Your task to perform on an android device: turn on improve location accuracy Image 0: 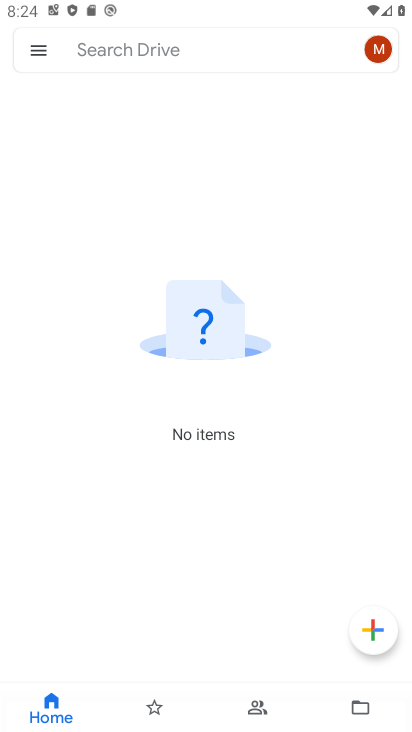
Step 0: press home button
Your task to perform on an android device: turn on improve location accuracy Image 1: 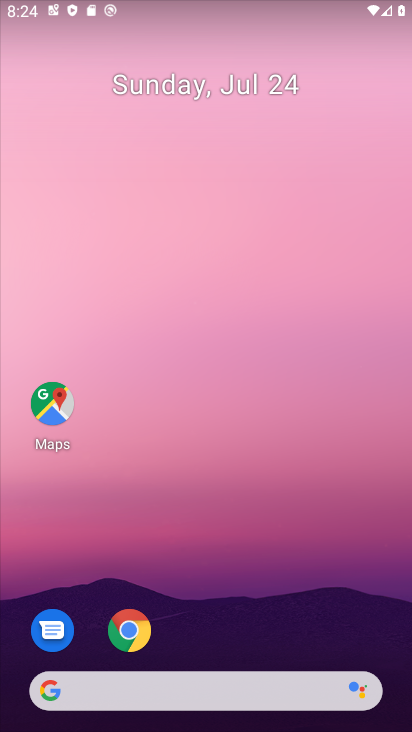
Step 1: drag from (220, 626) to (130, 48)
Your task to perform on an android device: turn on improve location accuracy Image 2: 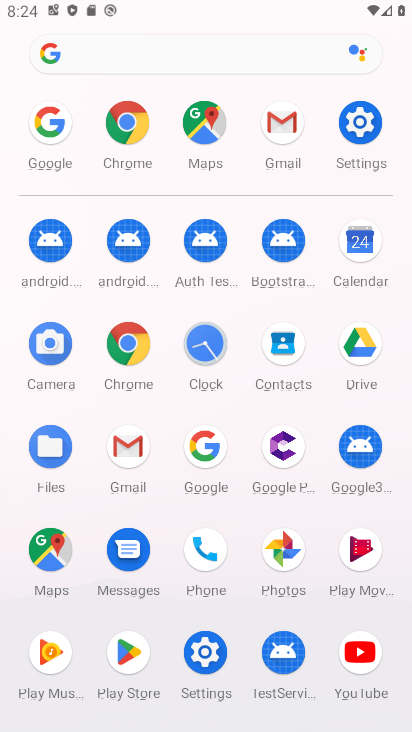
Step 2: click (348, 125)
Your task to perform on an android device: turn on improve location accuracy Image 3: 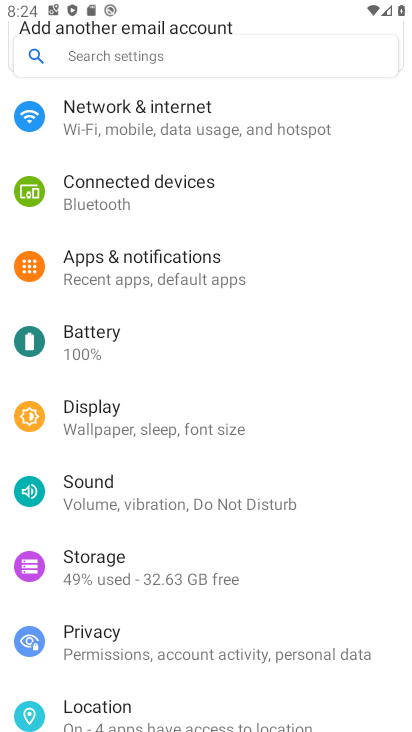
Step 3: click (139, 709)
Your task to perform on an android device: turn on improve location accuracy Image 4: 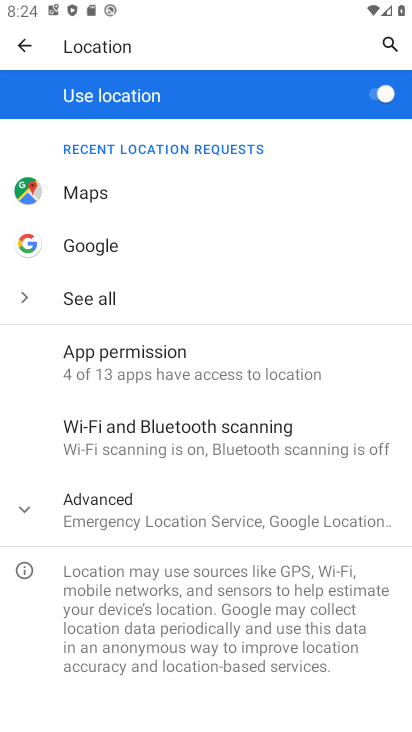
Step 4: click (207, 513)
Your task to perform on an android device: turn on improve location accuracy Image 5: 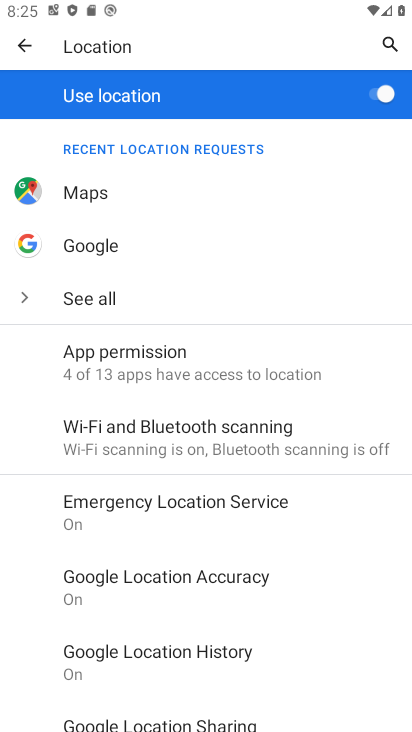
Step 5: click (205, 566)
Your task to perform on an android device: turn on improve location accuracy Image 6: 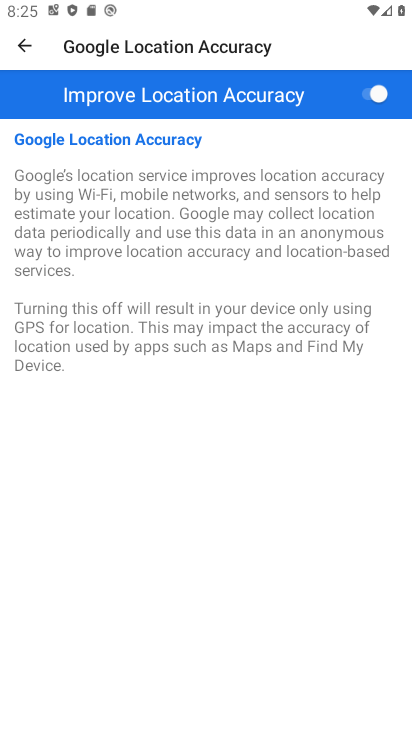
Step 6: task complete